Your task to perform on an android device: What's on my calendar today? Image 0: 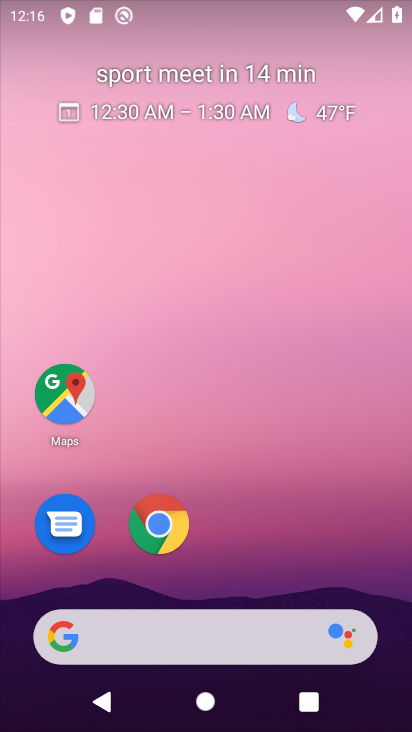
Step 0: click (185, 105)
Your task to perform on an android device: What's on my calendar today? Image 1: 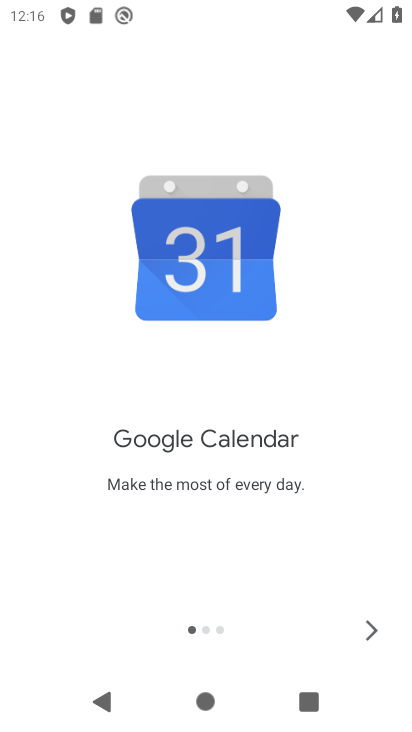
Step 1: click (375, 624)
Your task to perform on an android device: What's on my calendar today? Image 2: 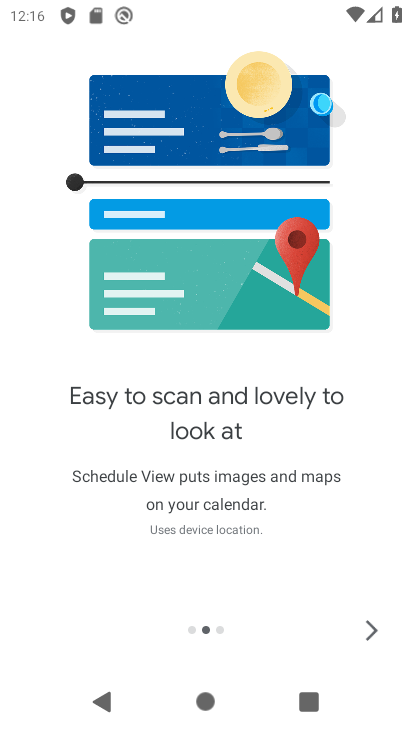
Step 2: click (370, 629)
Your task to perform on an android device: What's on my calendar today? Image 3: 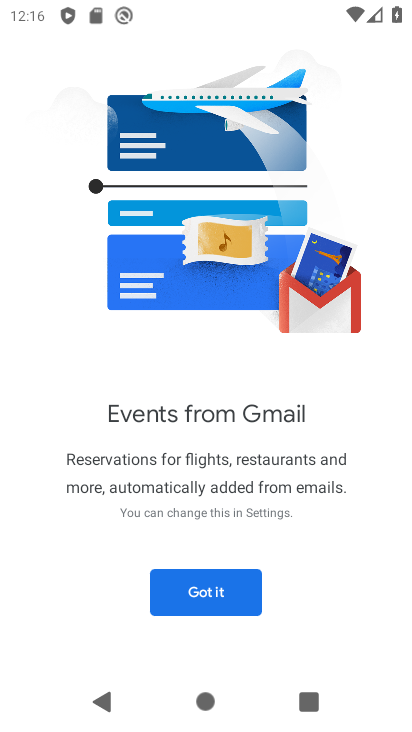
Step 3: click (239, 596)
Your task to perform on an android device: What's on my calendar today? Image 4: 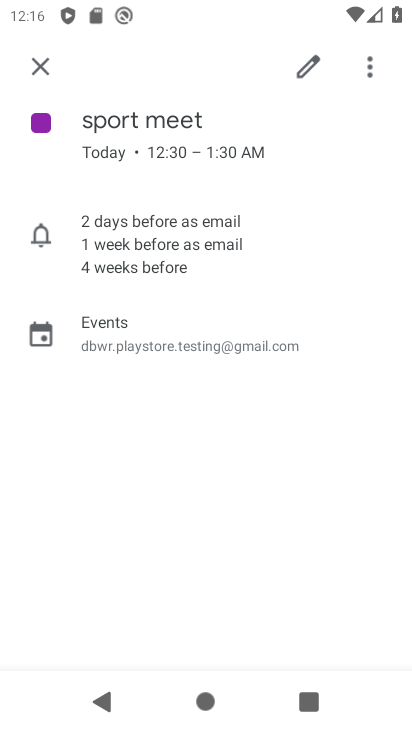
Step 4: click (42, 64)
Your task to perform on an android device: What's on my calendar today? Image 5: 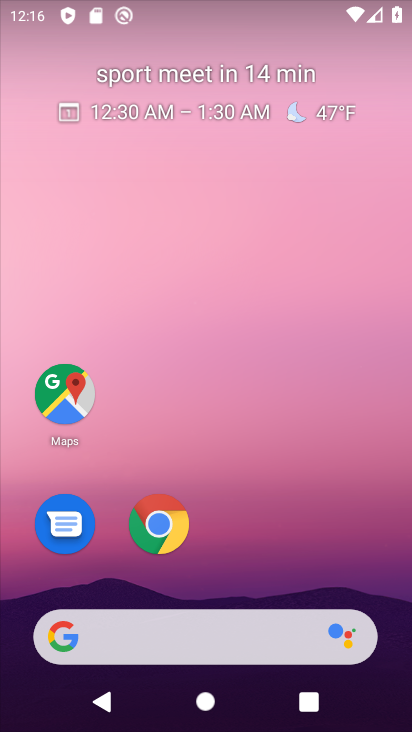
Step 5: drag from (254, 548) to (316, 15)
Your task to perform on an android device: What's on my calendar today? Image 6: 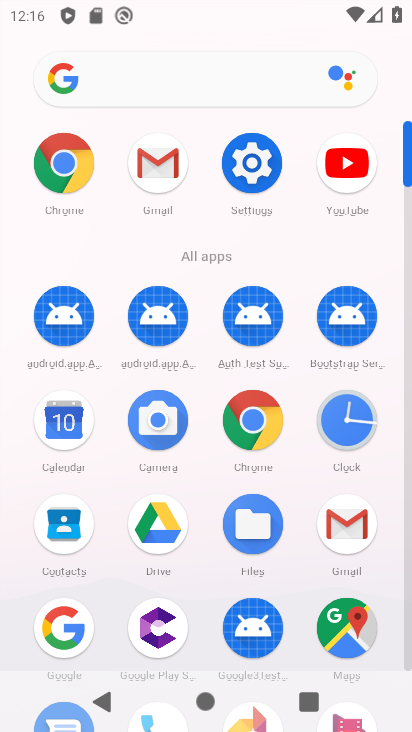
Step 6: click (63, 419)
Your task to perform on an android device: What's on my calendar today? Image 7: 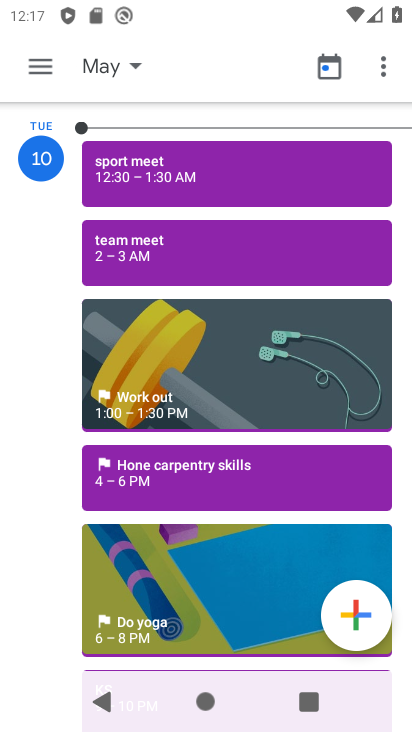
Step 7: task complete